Your task to perform on an android device: change the upload size in google photos Image 0: 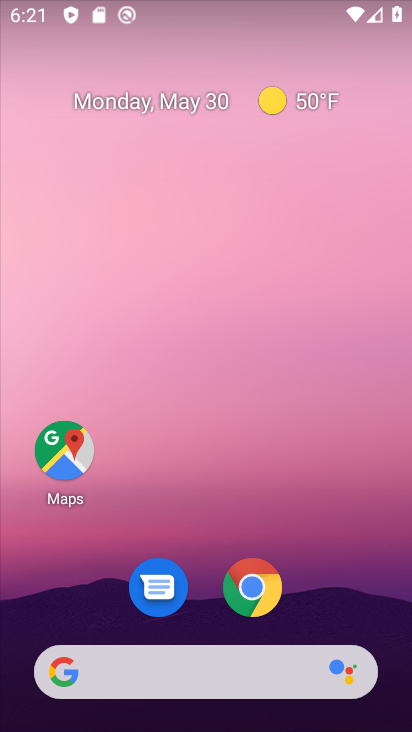
Step 0: drag from (320, 541) to (201, 24)
Your task to perform on an android device: change the upload size in google photos Image 1: 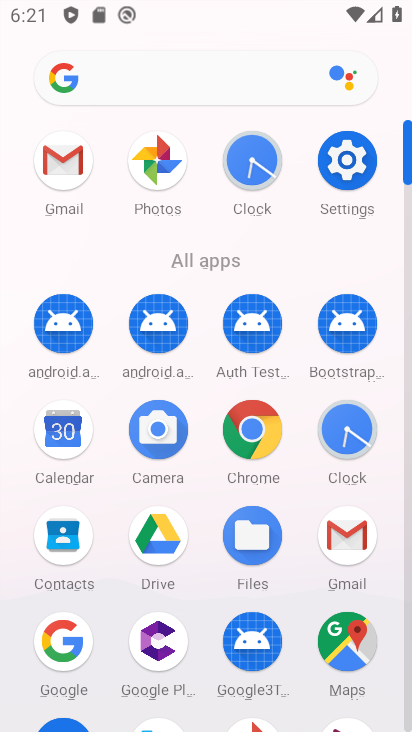
Step 1: drag from (19, 588) to (12, 283)
Your task to perform on an android device: change the upload size in google photos Image 2: 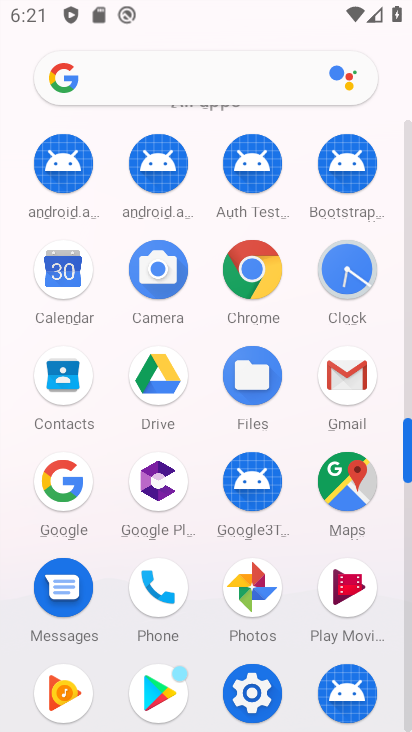
Step 2: click (256, 586)
Your task to perform on an android device: change the upload size in google photos Image 3: 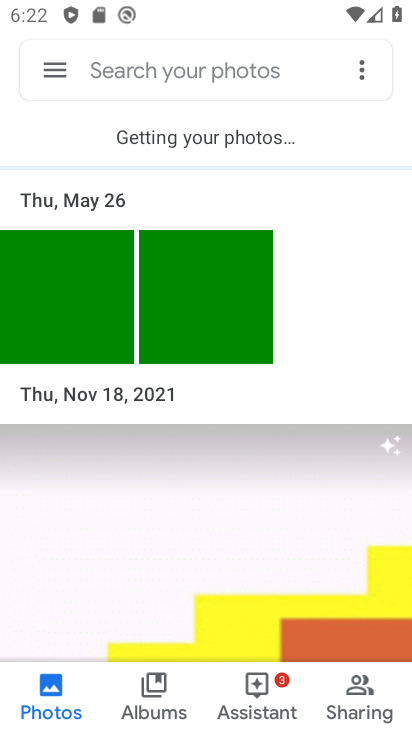
Step 3: click (47, 65)
Your task to perform on an android device: change the upload size in google photos Image 4: 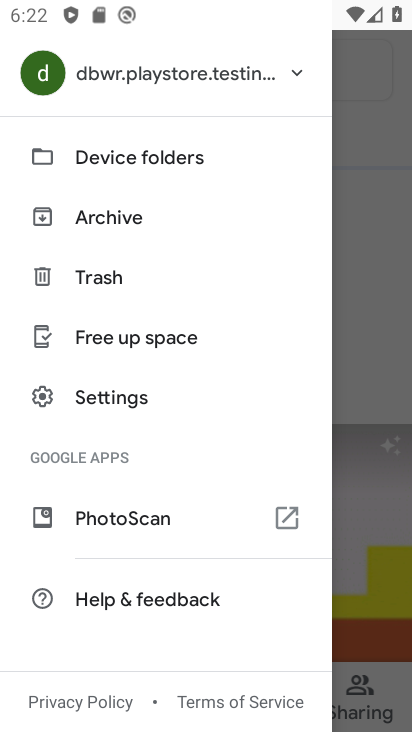
Step 4: click (125, 390)
Your task to perform on an android device: change the upload size in google photos Image 5: 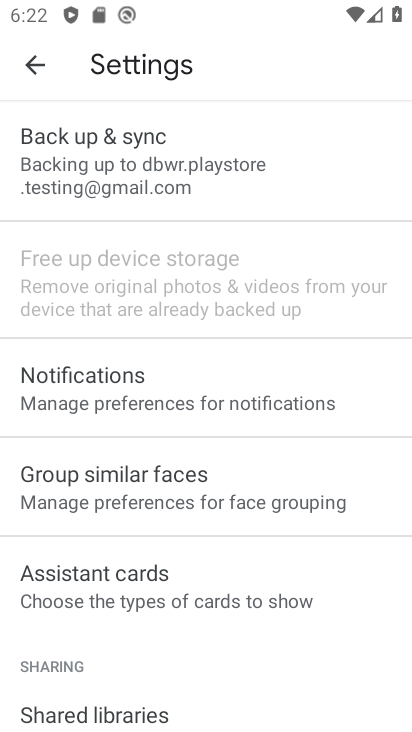
Step 5: click (150, 141)
Your task to perform on an android device: change the upload size in google photos Image 6: 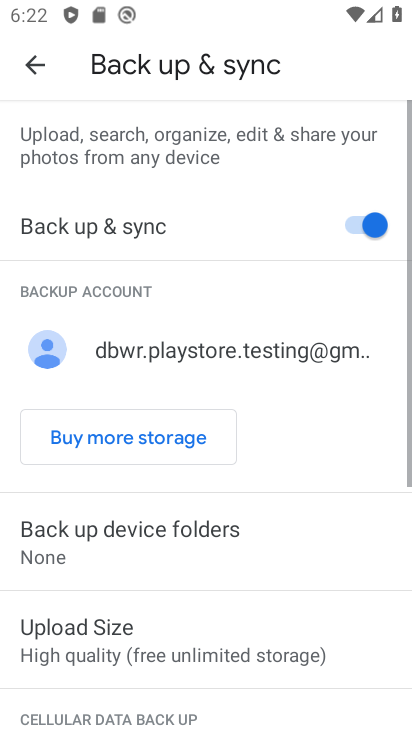
Step 6: drag from (251, 597) to (243, 188)
Your task to perform on an android device: change the upload size in google photos Image 7: 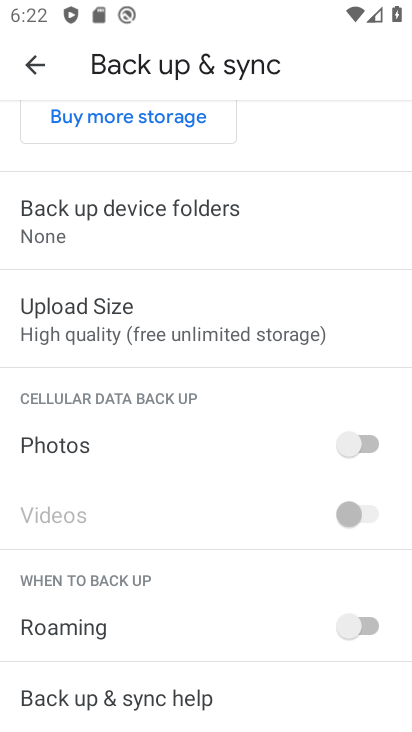
Step 7: click (142, 302)
Your task to perform on an android device: change the upload size in google photos Image 8: 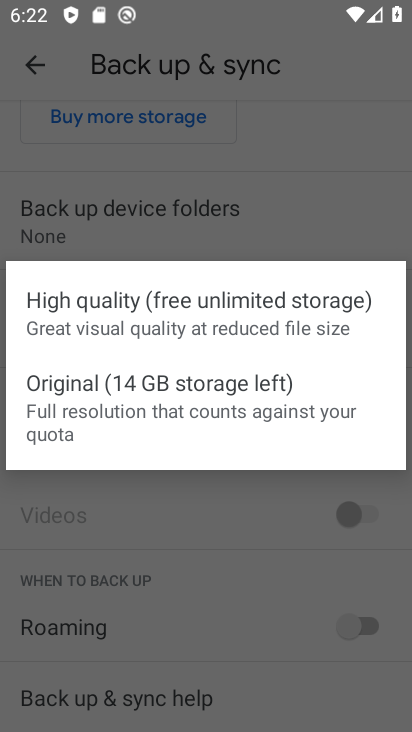
Step 8: click (141, 380)
Your task to perform on an android device: change the upload size in google photos Image 9: 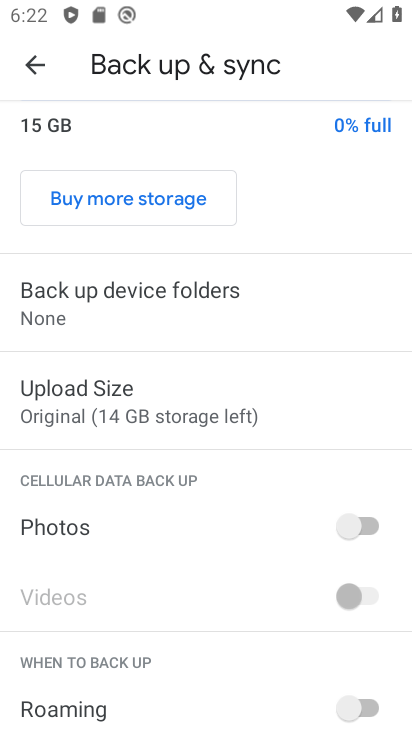
Step 9: task complete